Your task to perform on an android device: turn on translation in the chrome app Image 0: 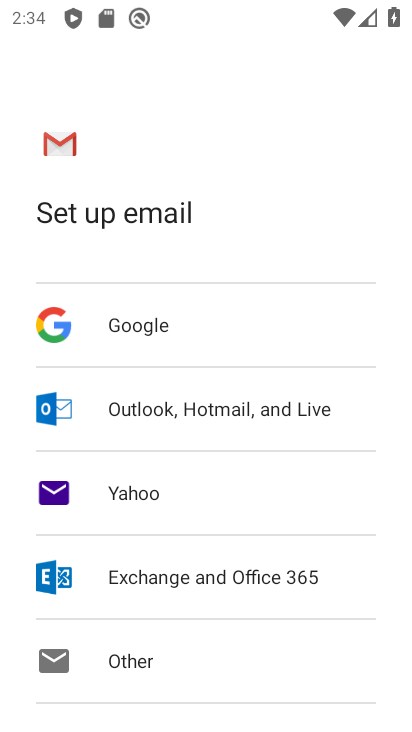
Step 0: press home button
Your task to perform on an android device: turn on translation in the chrome app Image 1: 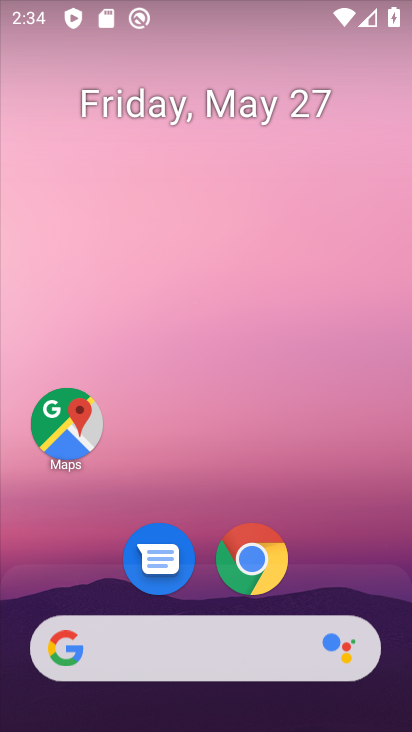
Step 1: click (241, 574)
Your task to perform on an android device: turn on translation in the chrome app Image 2: 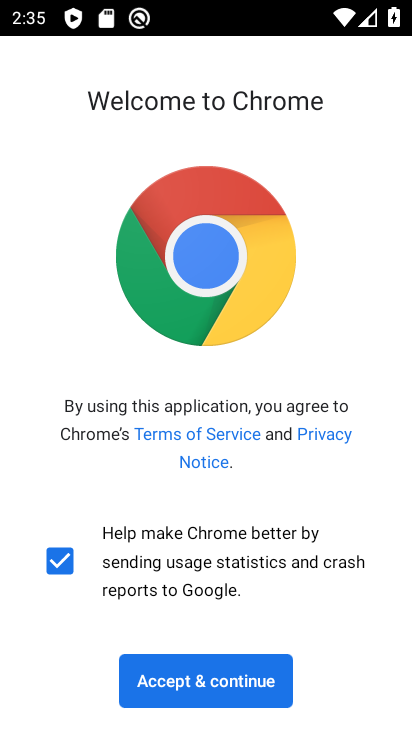
Step 2: click (158, 666)
Your task to perform on an android device: turn on translation in the chrome app Image 3: 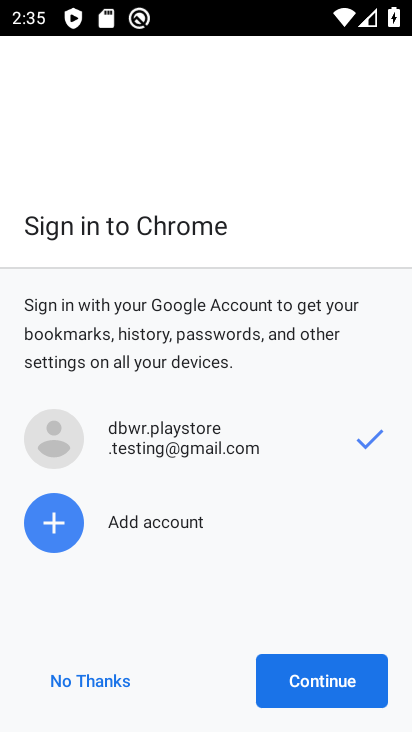
Step 3: click (148, 579)
Your task to perform on an android device: turn on translation in the chrome app Image 4: 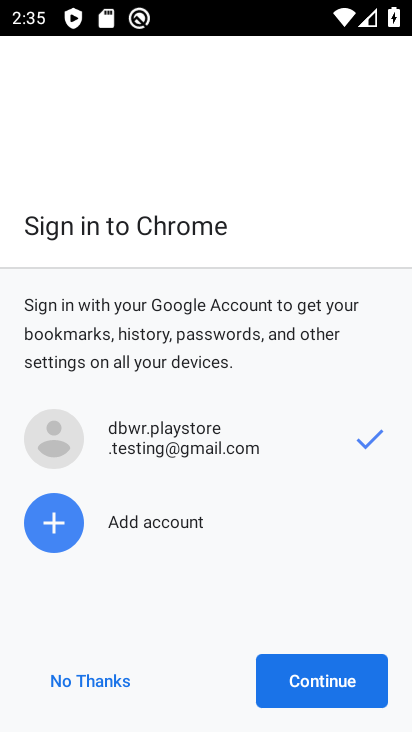
Step 4: click (301, 675)
Your task to perform on an android device: turn on translation in the chrome app Image 5: 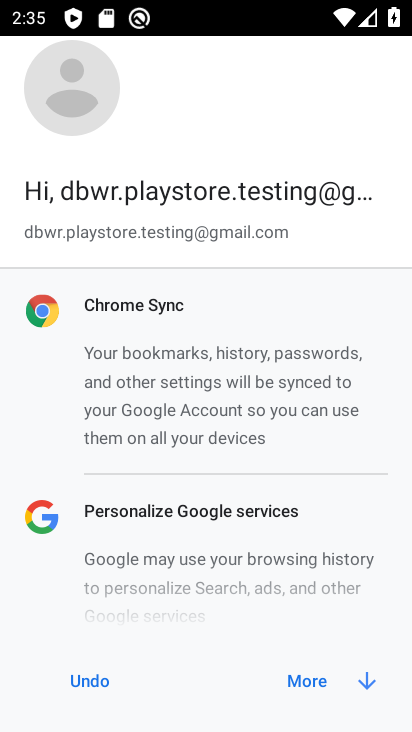
Step 5: click (302, 672)
Your task to perform on an android device: turn on translation in the chrome app Image 6: 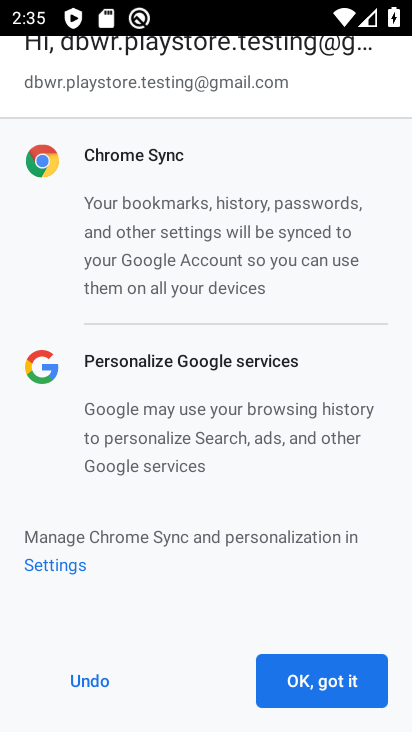
Step 6: click (306, 665)
Your task to perform on an android device: turn on translation in the chrome app Image 7: 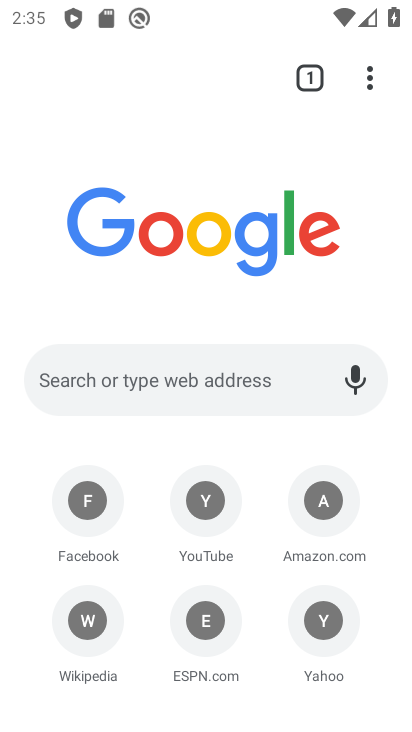
Step 7: click (373, 89)
Your task to perform on an android device: turn on translation in the chrome app Image 8: 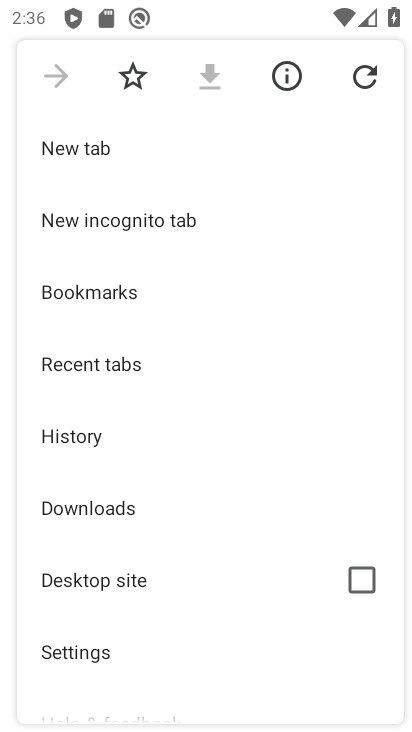
Step 8: click (91, 643)
Your task to perform on an android device: turn on translation in the chrome app Image 9: 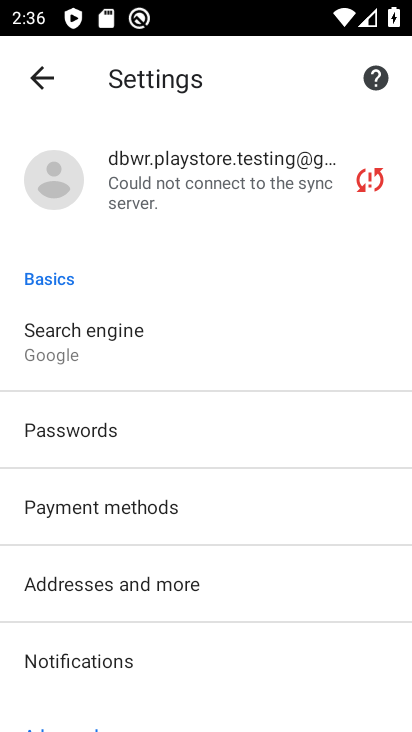
Step 9: drag from (229, 601) to (183, 26)
Your task to perform on an android device: turn on translation in the chrome app Image 10: 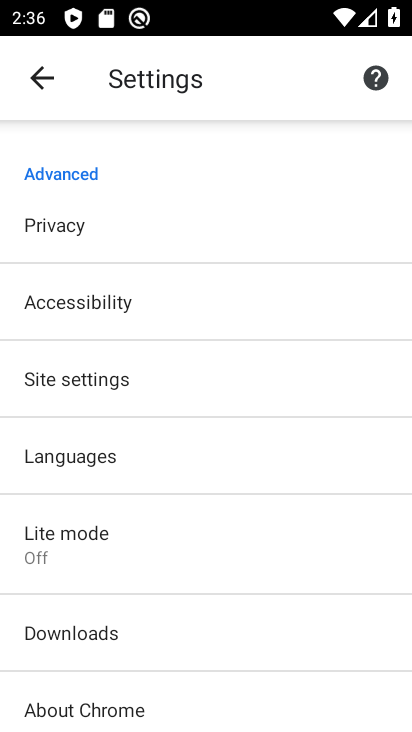
Step 10: click (111, 453)
Your task to perform on an android device: turn on translation in the chrome app Image 11: 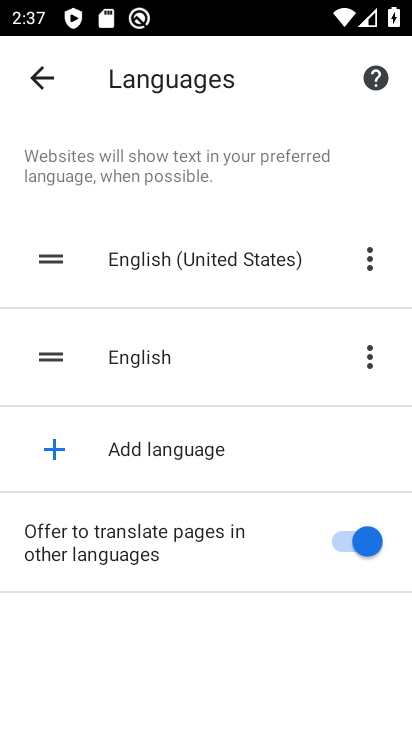
Step 11: task complete